Your task to perform on an android device: Turn off the flashlight Image 0: 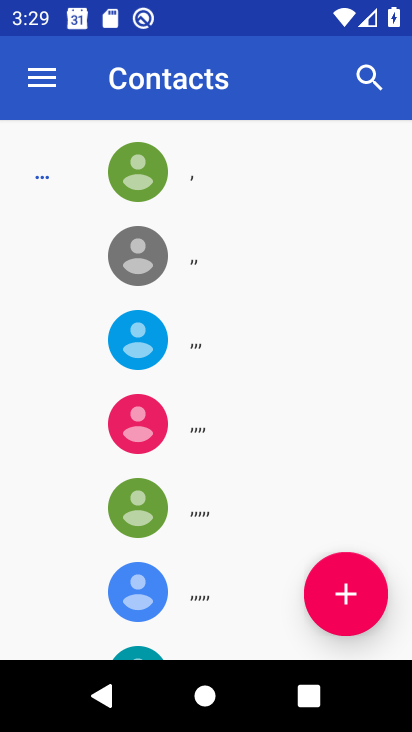
Step 0: press home button
Your task to perform on an android device: Turn off the flashlight Image 1: 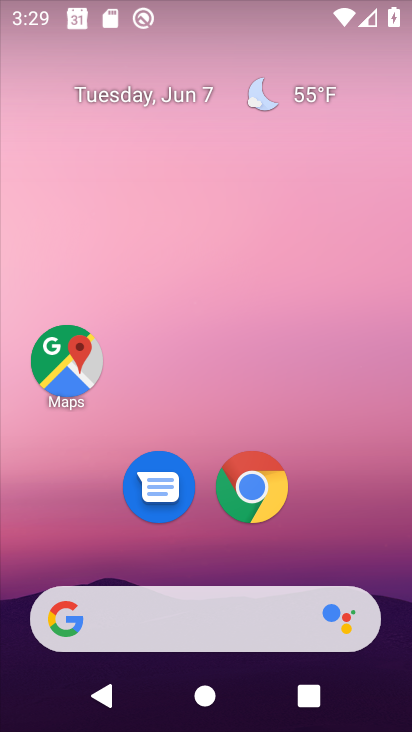
Step 1: drag from (316, 540) to (351, 31)
Your task to perform on an android device: Turn off the flashlight Image 2: 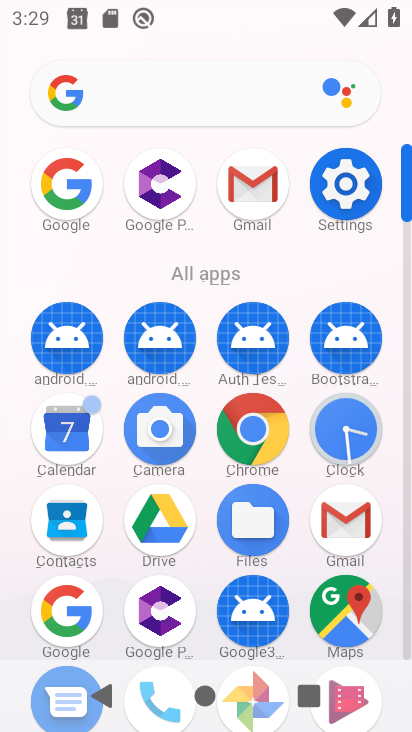
Step 2: click (344, 185)
Your task to perform on an android device: Turn off the flashlight Image 3: 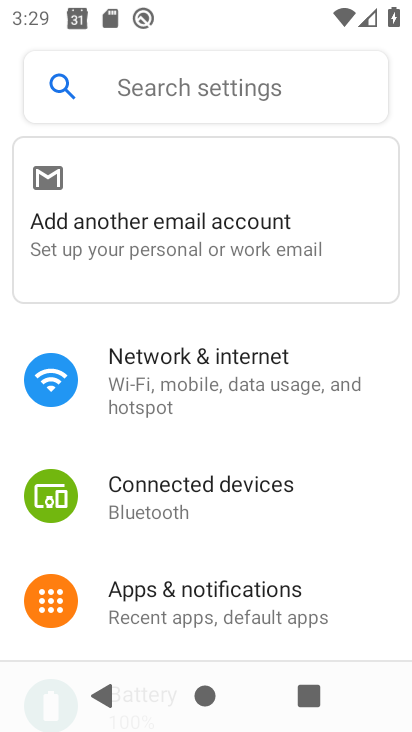
Step 3: click (225, 101)
Your task to perform on an android device: Turn off the flashlight Image 4: 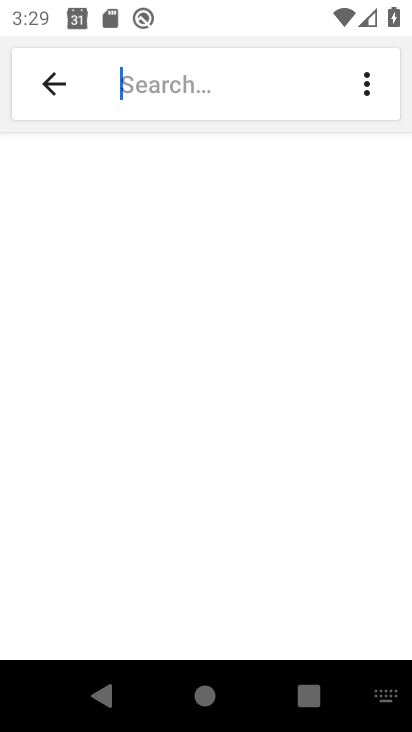
Step 4: type "flash"
Your task to perform on an android device: Turn off the flashlight Image 5: 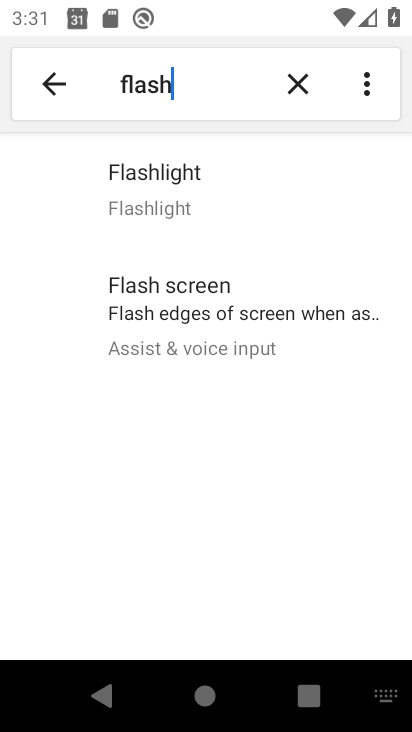
Step 5: task complete